Your task to perform on an android device: Open calendar and show me the fourth week of next month Image 0: 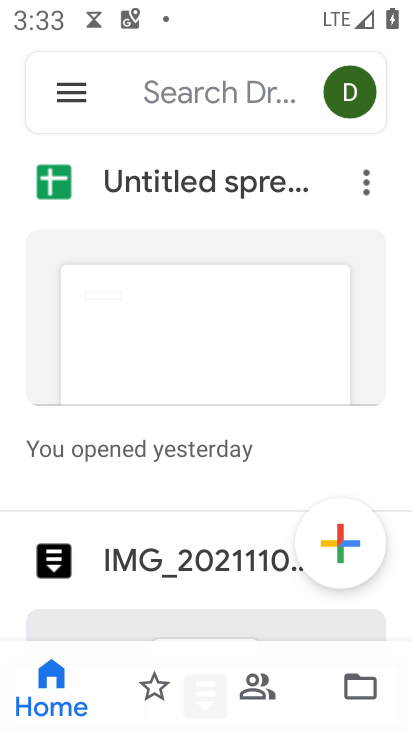
Step 0: press home button
Your task to perform on an android device: Open calendar and show me the fourth week of next month Image 1: 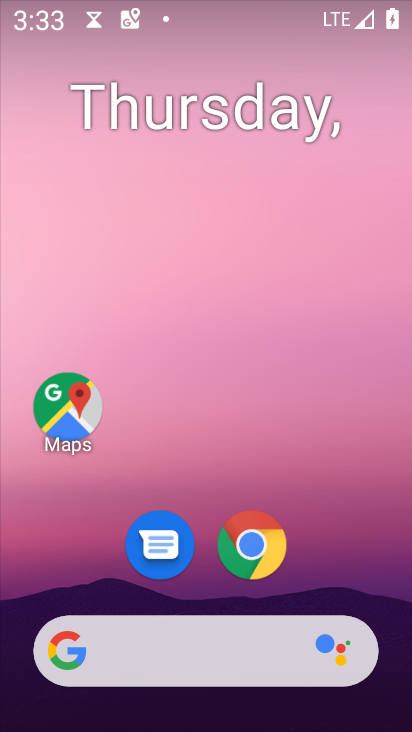
Step 1: drag from (343, 569) to (326, 58)
Your task to perform on an android device: Open calendar and show me the fourth week of next month Image 2: 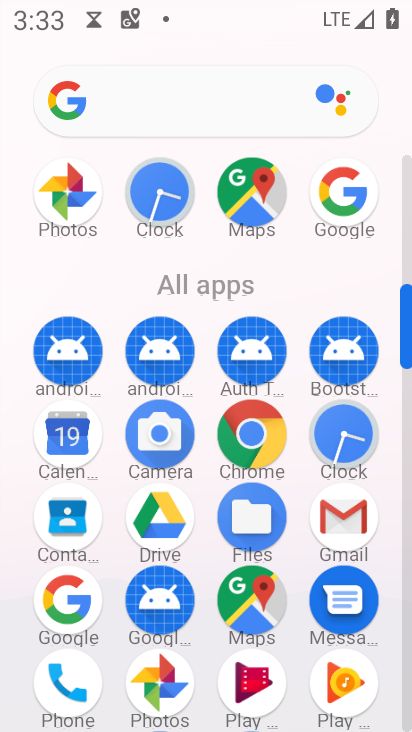
Step 2: click (46, 458)
Your task to perform on an android device: Open calendar and show me the fourth week of next month Image 3: 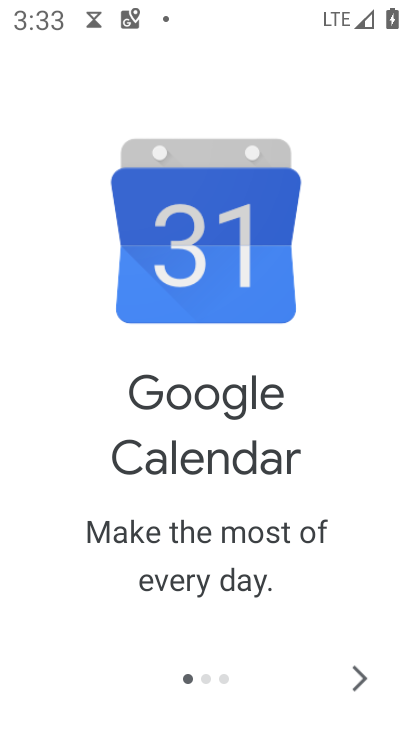
Step 3: click (345, 669)
Your task to perform on an android device: Open calendar and show me the fourth week of next month Image 4: 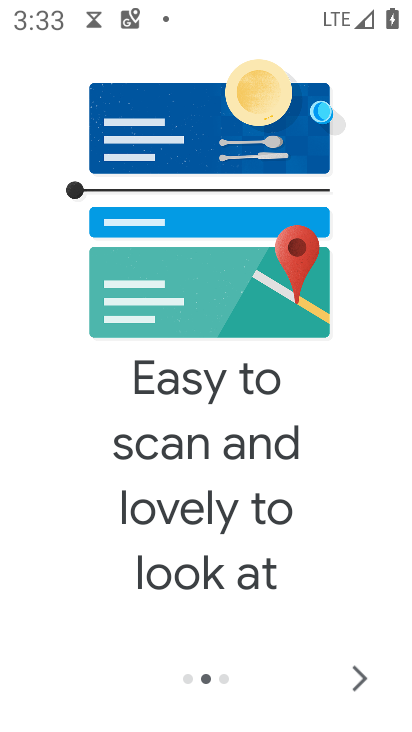
Step 4: click (343, 665)
Your task to perform on an android device: Open calendar and show me the fourth week of next month Image 5: 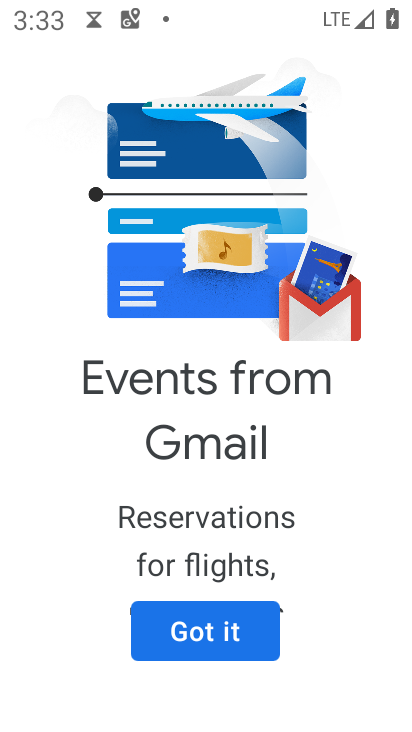
Step 5: click (212, 609)
Your task to perform on an android device: Open calendar and show me the fourth week of next month Image 6: 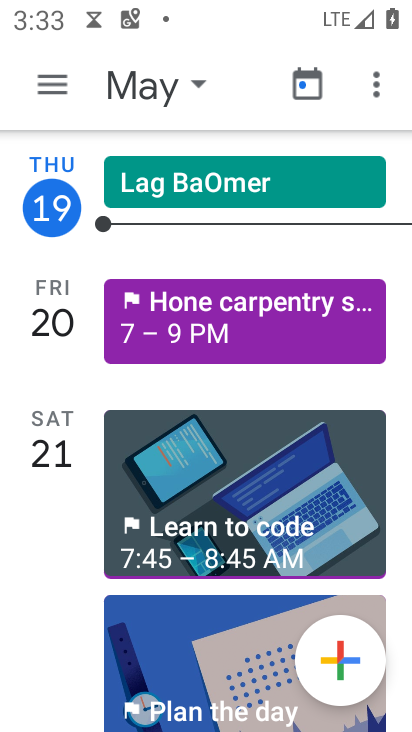
Step 6: click (187, 97)
Your task to perform on an android device: Open calendar and show me the fourth week of next month Image 7: 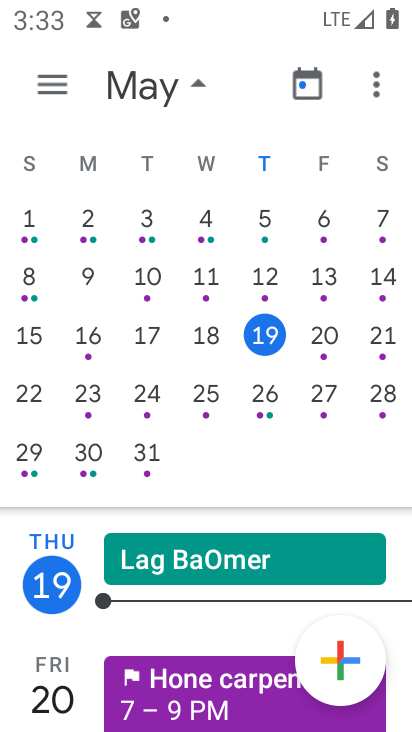
Step 7: drag from (368, 392) to (26, 443)
Your task to perform on an android device: Open calendar and show me the fourth week of next month Image 8: 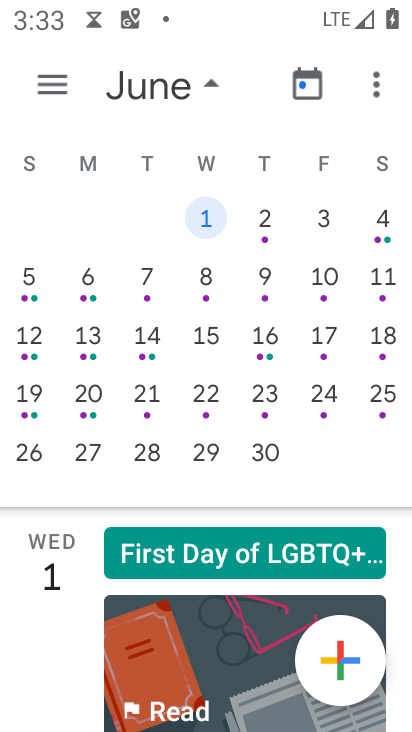
Step 8: click (164, 459)
Your task to perform on an android device: Open calendar and show me the fourth week of next month Image 9: 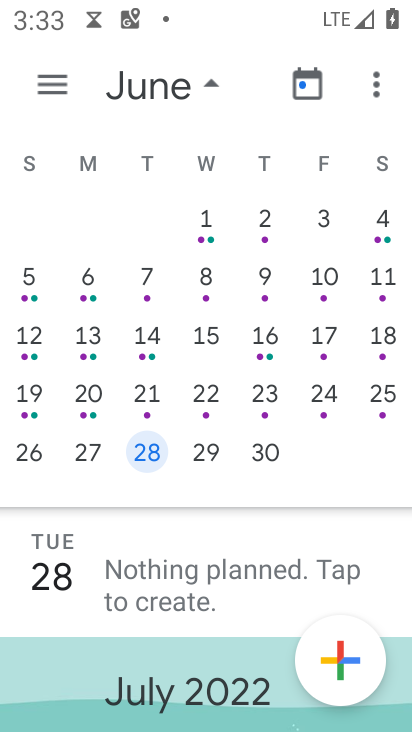
Step 9: task complete